Your task to perform on an android device: Search for sushi restaurants on Maps Image 0: 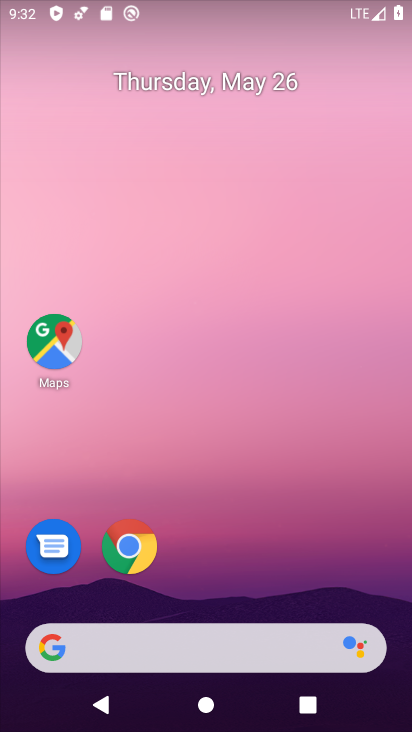
Step 0: drag from (349, 559) to (321, 189)
Your task to perform on an android device: Search for sushi restaurants on Maps Image 1: 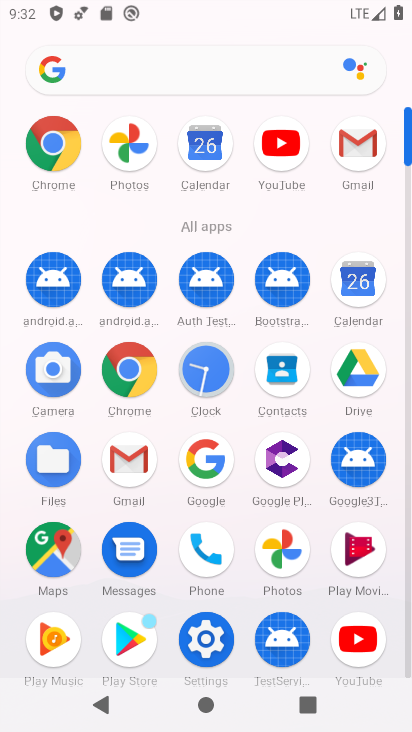
Step 1: click (43, 562)
Your task to perform on an android device: Search for sushi restaurants on Maps Image 2: 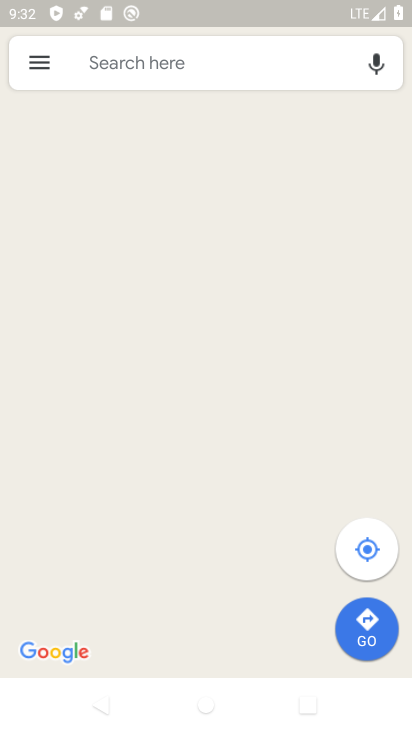
Step 2: click (204, 74)
Your task to perform on an android device: Search for sushi restaurants on Maps Image 3: 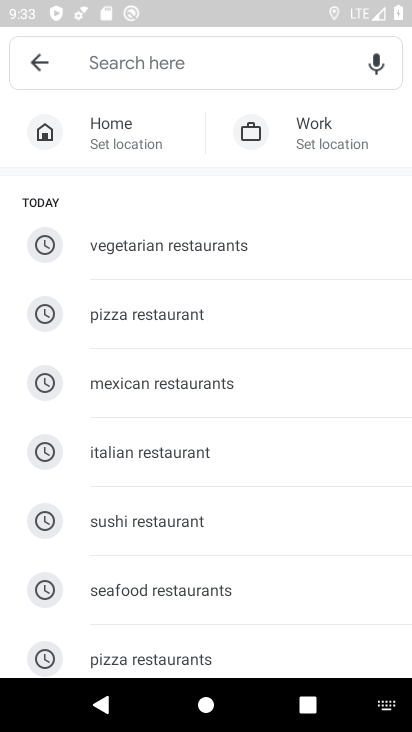
Step 3: type "sushi restaurants "
Your task to perform on an android device: Search for sushi restaurants on Maps Image 4: 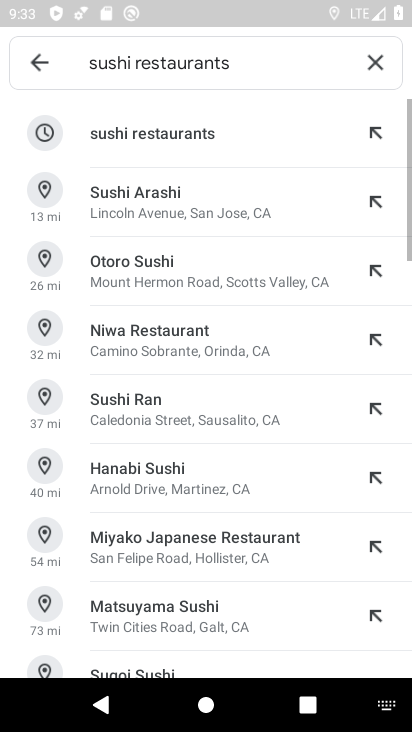
Step 4: click (152, 139)
Your task to perform on an android device: Search for sushi restaurants on Maps Image 5: 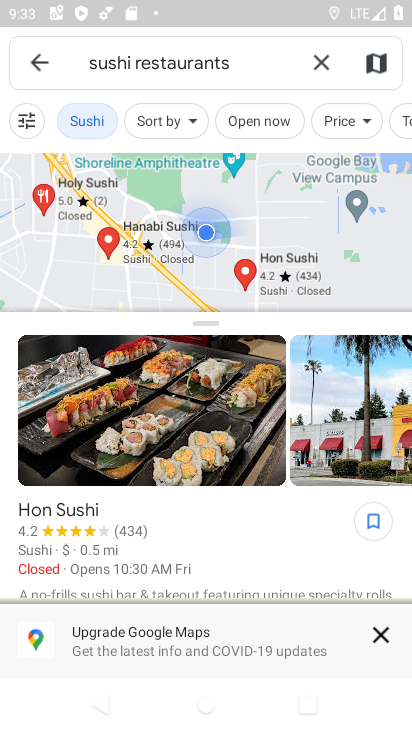
Step 5: task complete